Your task to perform on an android device: Go to location settings Image 0: 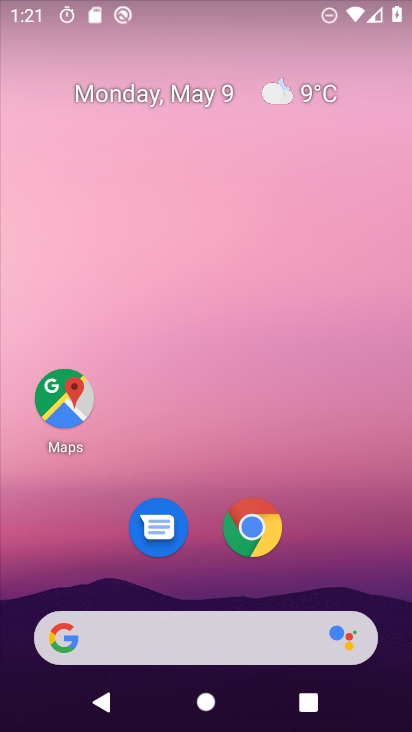
Step 0: drag from (269, 595) to (327, 13)
Your task to perform on an android device: Go to location settings Image 1: 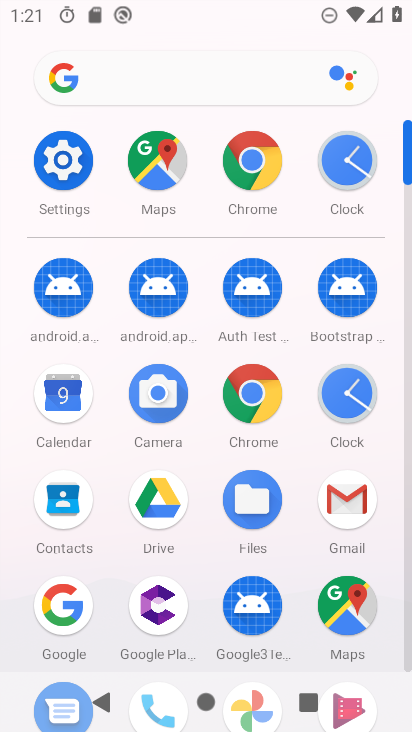
Step 1: click (69, 158)
Your task to perform on an android device: Go to location settings Image 2: 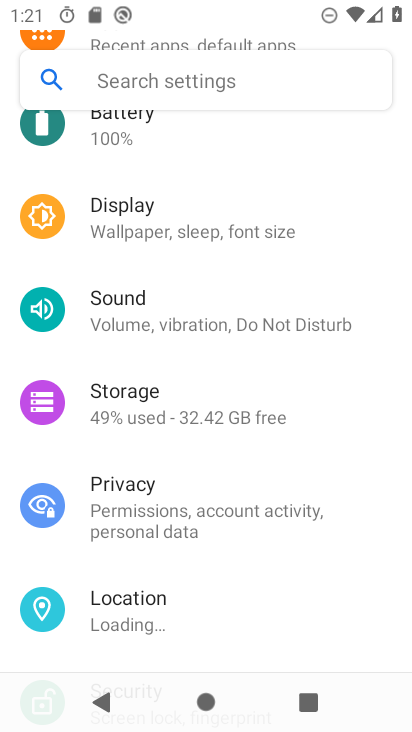
Step 2: click (172, 619)
Your task to perform on an android device: Go to location settings Image 3: 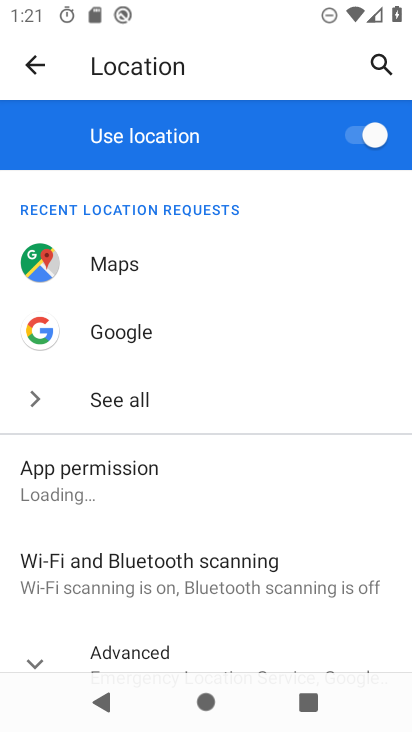
Step 3: task complete